Your task to perform on an android device: turn vacation reply on in the gmail app Image 0: 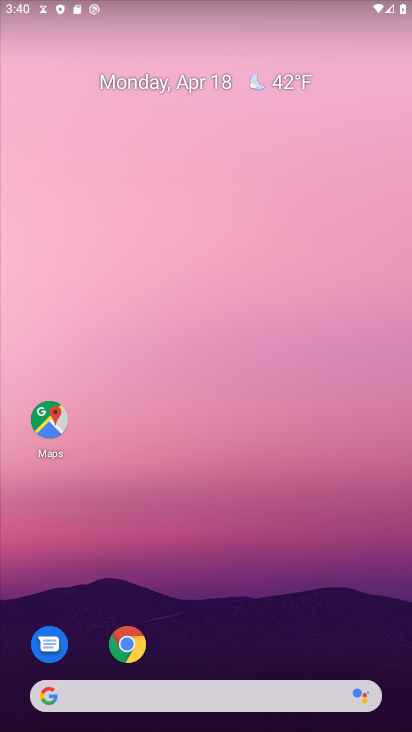
Step 0: drag from (291, 621) to (253, 35)
Your task to perform on an android device: turn vacation reply on in the gmail app Image 1: 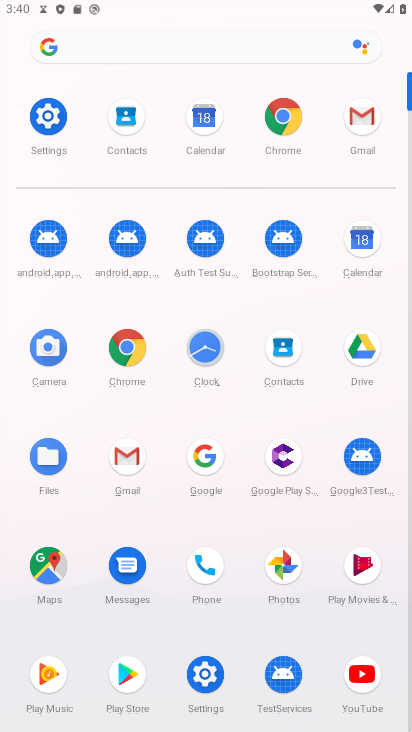
Step 1: click (129, 448)
Your task to perform on an android device: turn vacation reply on in the gmail app Image 2: 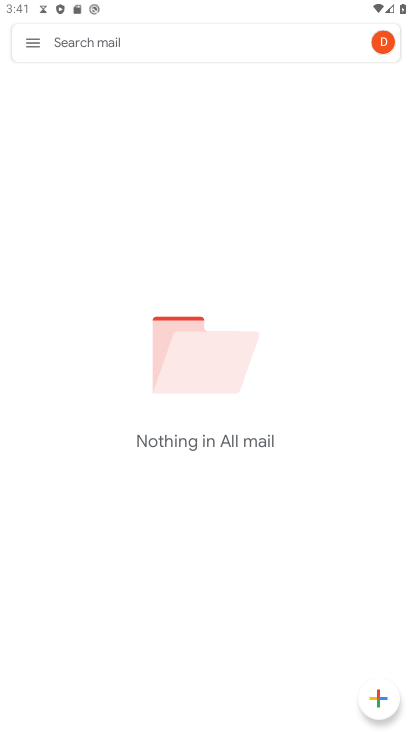
Step 2: click (39, 39)
Your task to perform on an android device: turn vacation reply on in the gmail app Image 3: 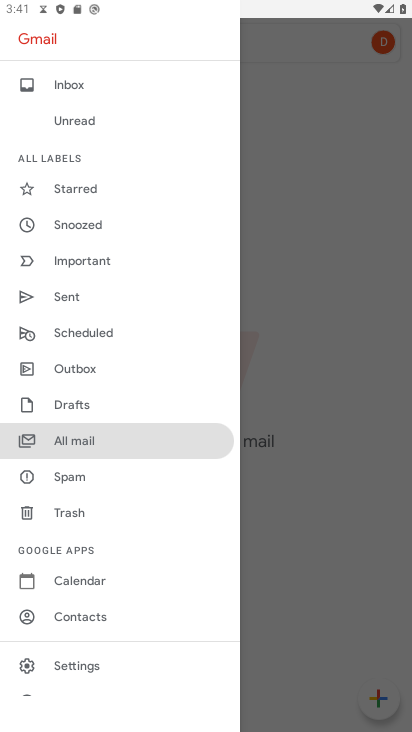
Step 3: click (95, 673)
Your task to perform on an android device: turn vacation reply on in the gmail app Image 4: 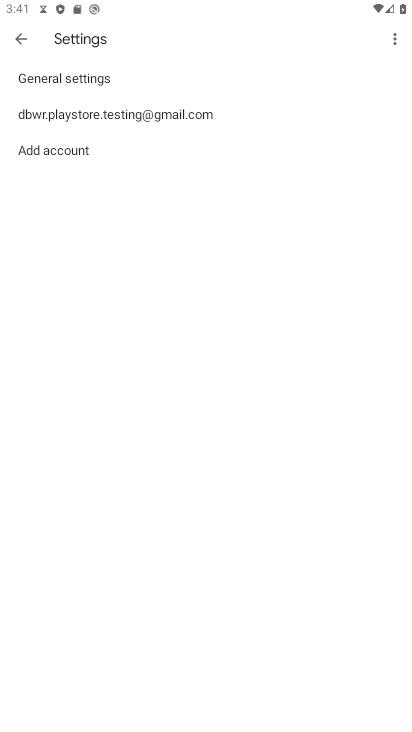
Step 4: click (102, 116)
Your task to perform on an android device: turn vacation reply on in the gmail app Image 5: 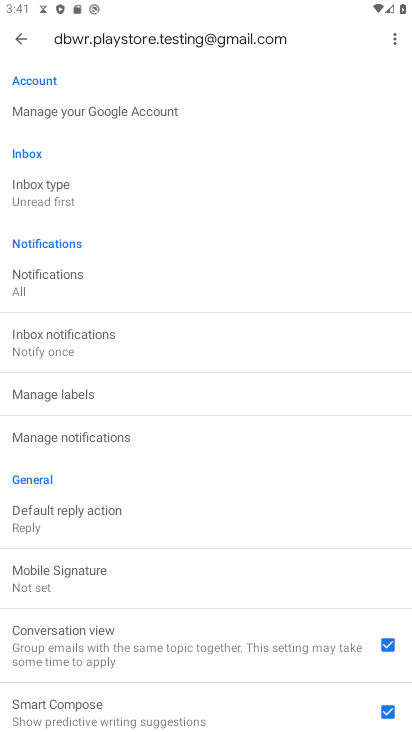
Step 5: drag from (238, 617) to (231, 284)
Your task to perform on an android device: turn vacation reply on in the gmail app Image 6: 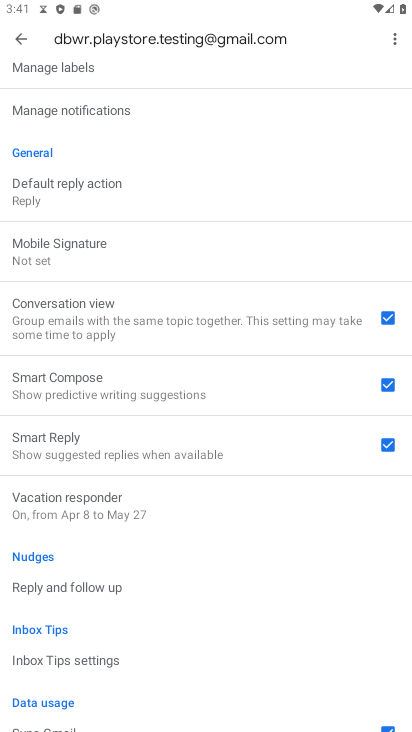
Step 6: click (99, 509)
Your task to perform on an android device: turn vacation reply on in the gmail app Image 7: 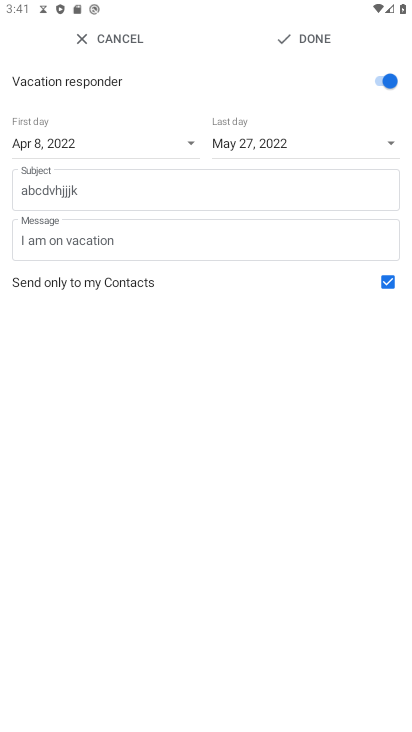
Step 7: click (291, 33)
Your task to perform on an android device: turn vacation reply on in the gmail app Image 8: 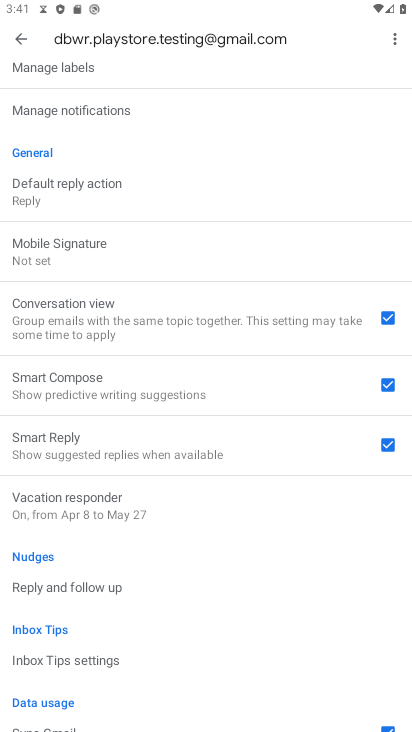
Step 8: task complete